Your task to perform on an android device: Open wifi settings Image 0: 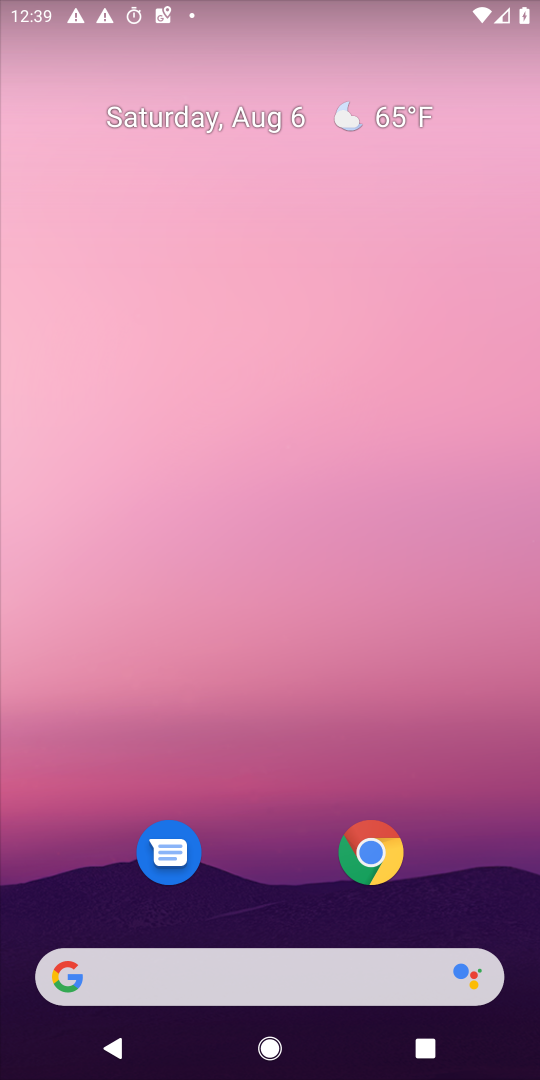
Step 0: drag from (320, 970) to (264, 375)
Your task to perform on an android device: Open wifi settings Image 1: 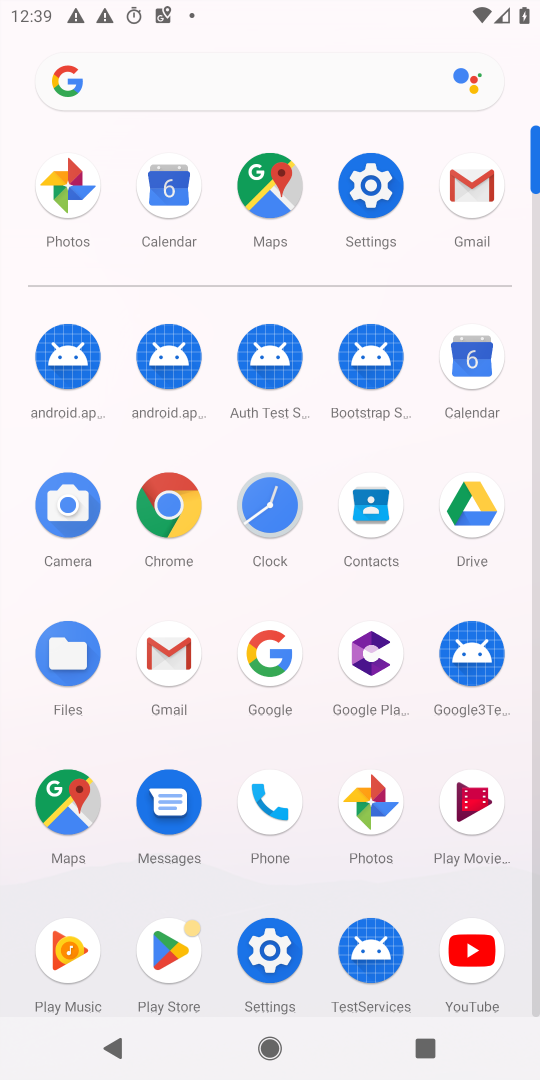
Step 1: click (370, 180)
Your task to perform on an android device: Open wifi settings Image 2: 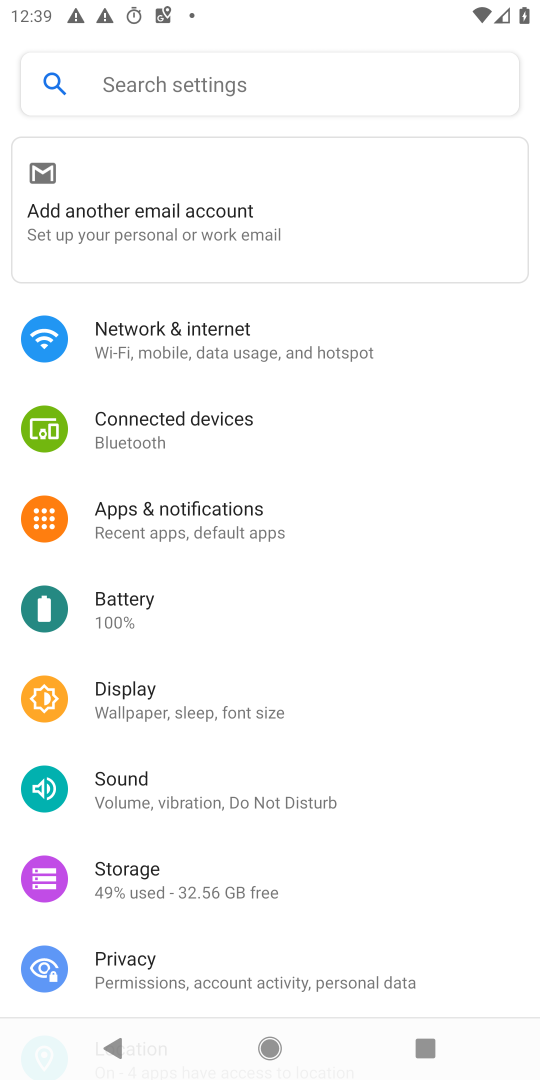
Step 2: click (237, 81)
Your task to perform on an android device: Open wifi settings Image 3: 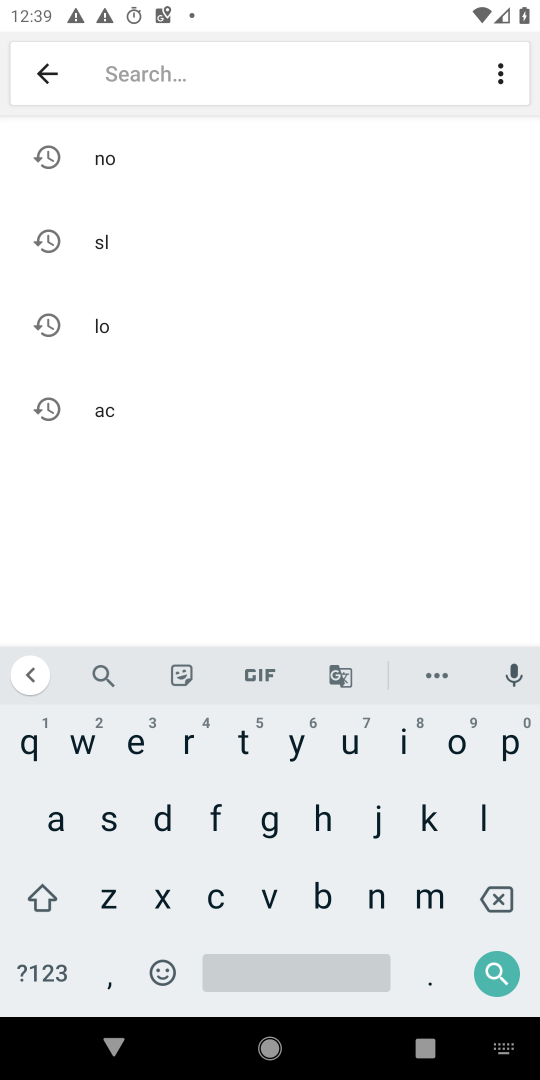
Step 3: click (41, 77)
Your task to perform on an android device: Open wifi settings Image 4: 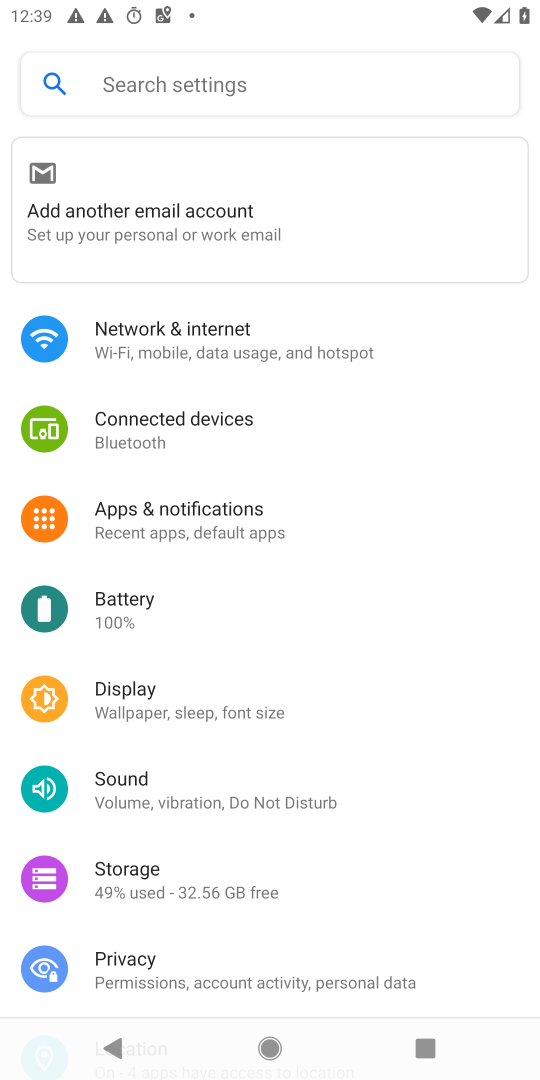
Step 4: click (148, 328)
Your task to perform on an android device: Open wifi settings Image 5: 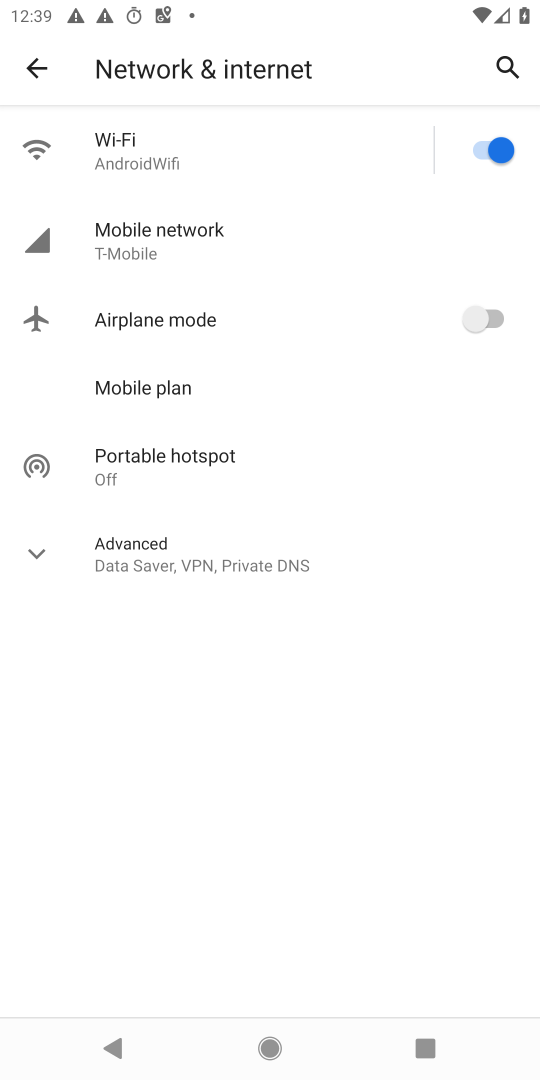
Step 5: click (200, 156)
Your task to perform on an android device: Open wifi settings Image 6: 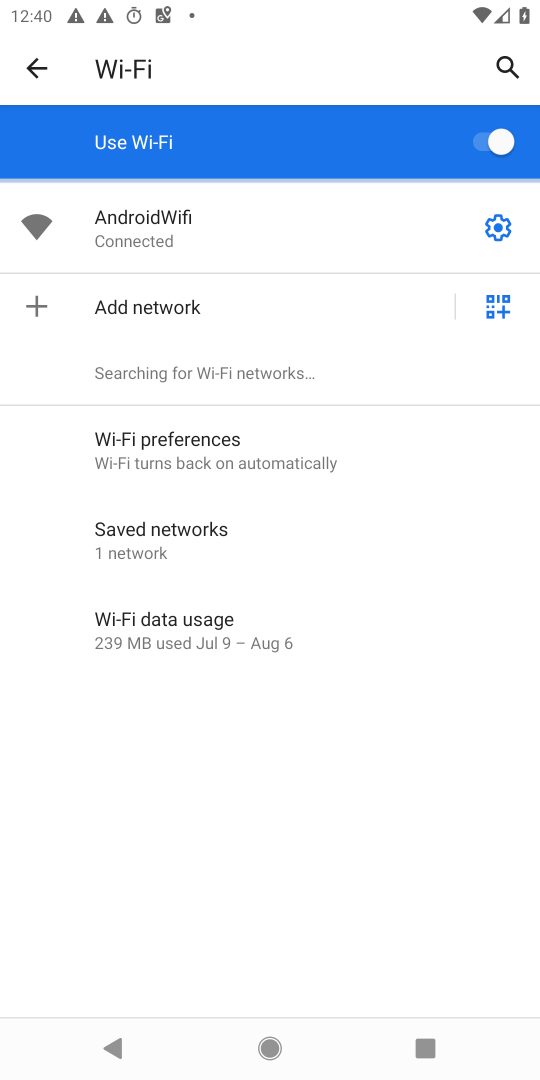
Step 6: task complete